Your task to perform on an android device: What is the news today? Image 0: 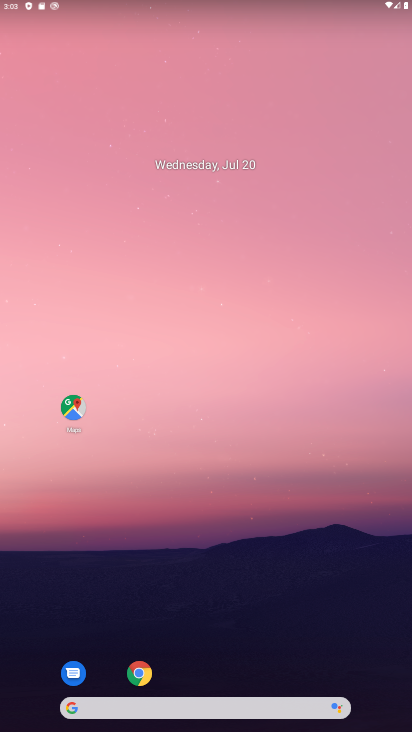
Step 0: drag from (327, 641) to (299, 230)
Your task to perform on an android device: What is the news today? Image 1: 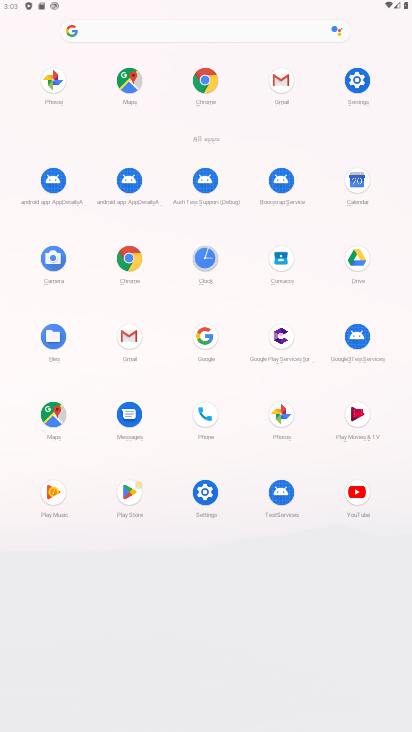
Step 1: click (196, 87)
Your task to perform on an android device: What is the news today? Image 2: 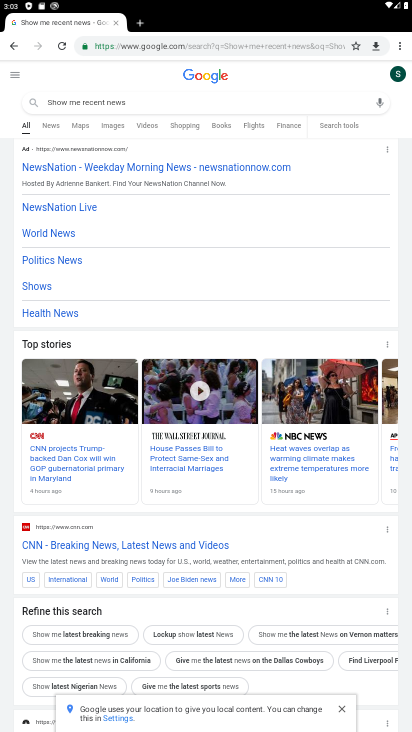
Step 2: click (394, 43)
Your task to perform on an android device: What is the news today? Image 3: 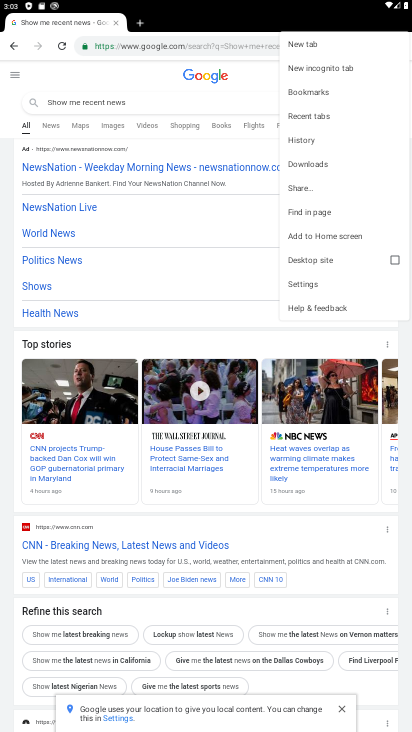
Step 3: click (330, 283)
Your task to perform on an android device: What is the news today? Image 4: 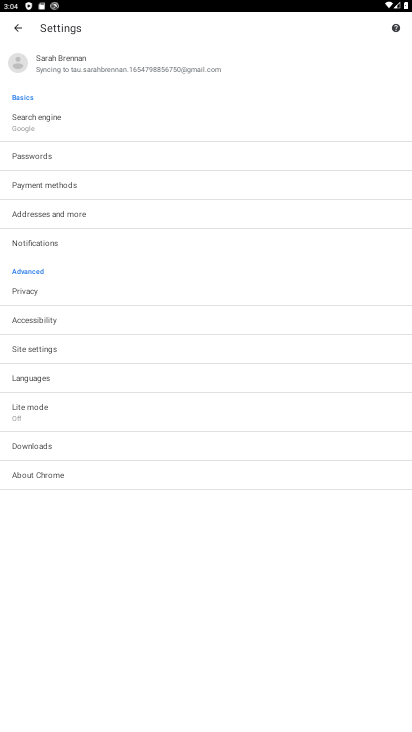
Step 4: click (18, 25)
Your task to perform on an android device: What is the news today? Image 5: 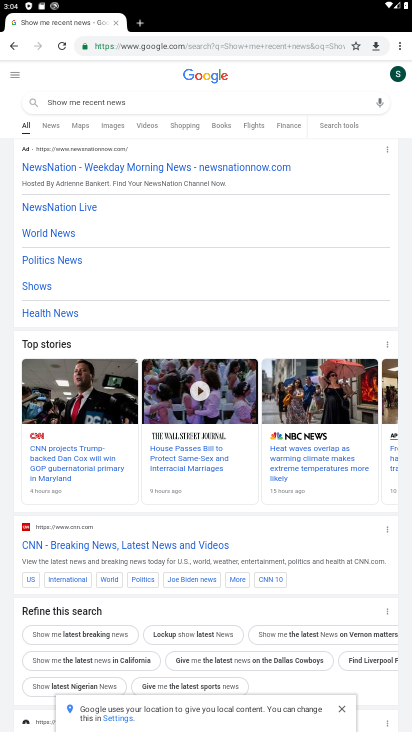
Step 5: click (399, 41)
Your task to perform on an android device: What is the news today? Image 6: 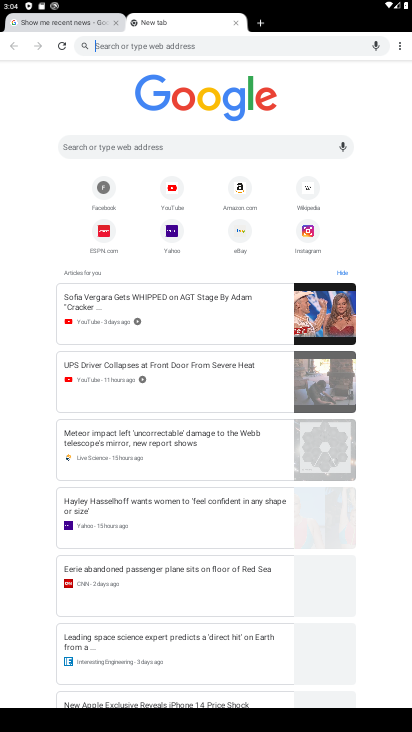
Step 6: click (395, 46)
Your task to perform on an android device: What is the news today? Image 7: 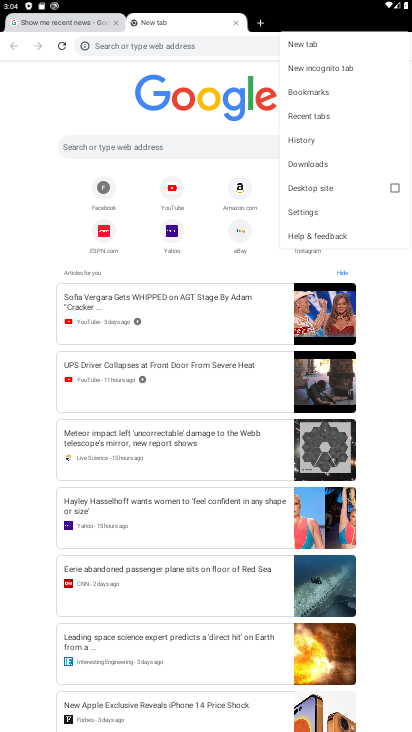
Step 7: click (43, 130)
Your task to perform on an android device: What is the news today? Image 8: 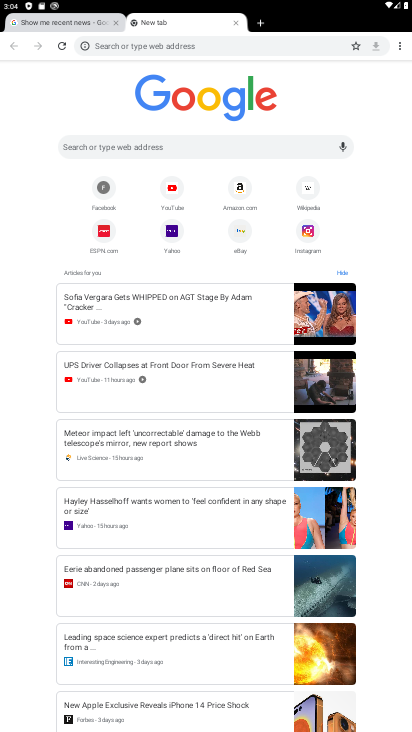
Step 8: click (184, 153)
Your task to perform on an android device: What is the news today? Image 9: 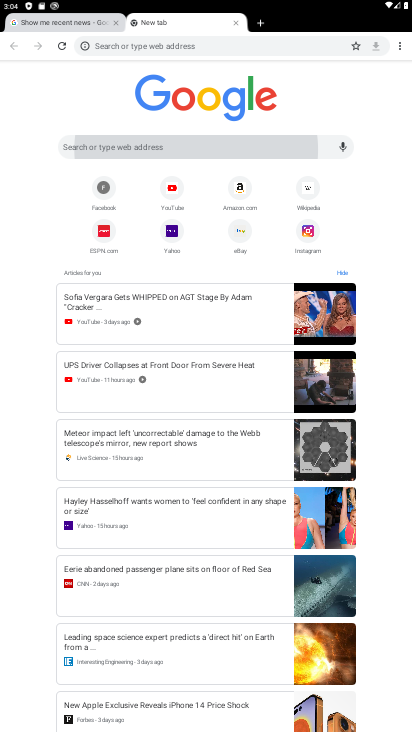
Step 9: click (191, 153)
Your task to perform on an android device: What is the news today? Image 10: 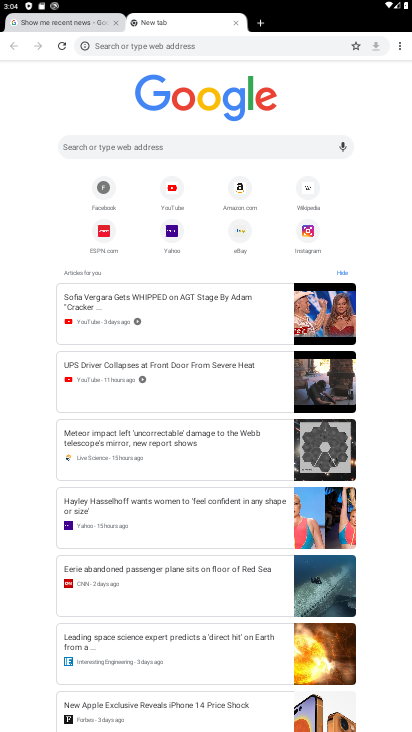
Step 10: type "What is the news today "
Your task to perform on an android device: What is the news today? Image 11: 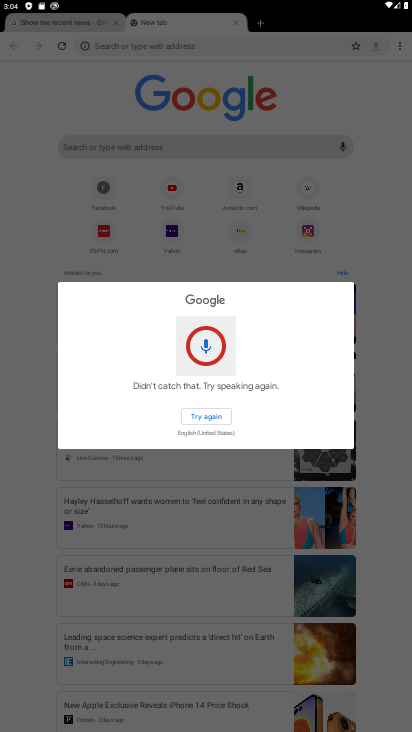
Step 11: click (47, 185)
Your task to perform on an android device: What is the news today? Image 12: 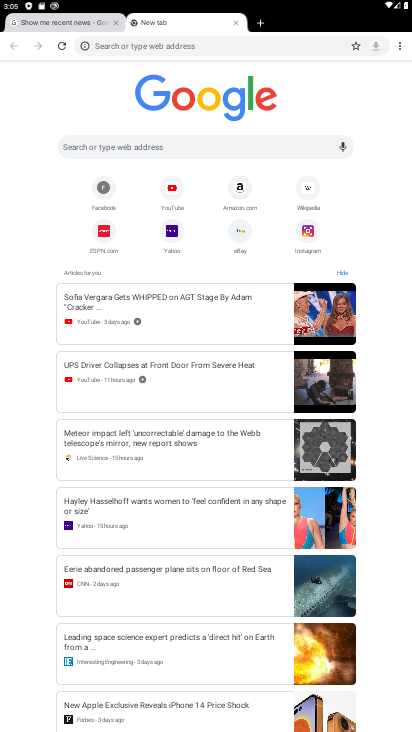
Step 12: click (177, 143)
Your task to perform on an android device: What is the news today? Image 13: 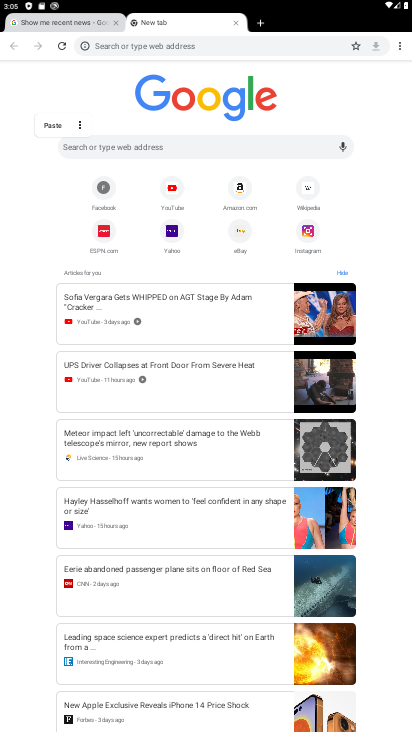
Step 13: type "What is the news today "
Your task to perform on an android device: What is the news today? Image 14: 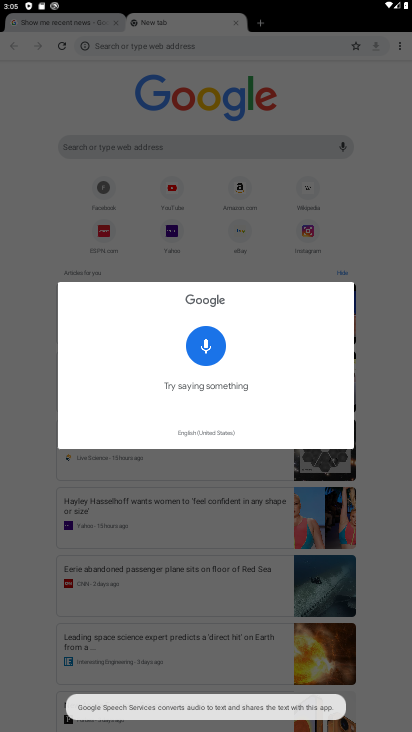
Step 14: click (18, 196)
Your task to perform on an android device: What is the news today? Image 15: 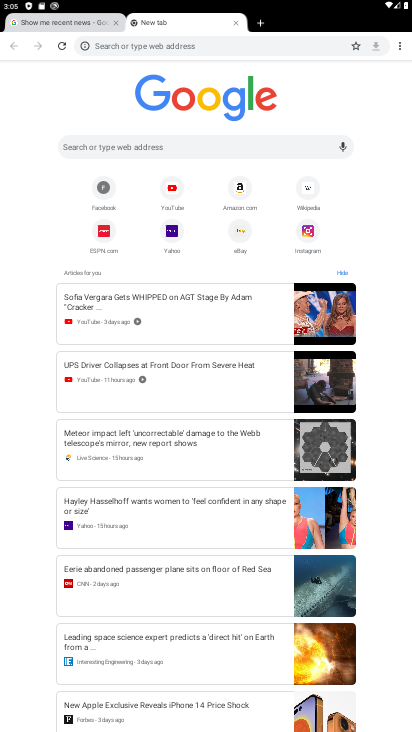
Step 15: click (188, 145)
Your task to perform on an android device: What is the news today? Image 16: 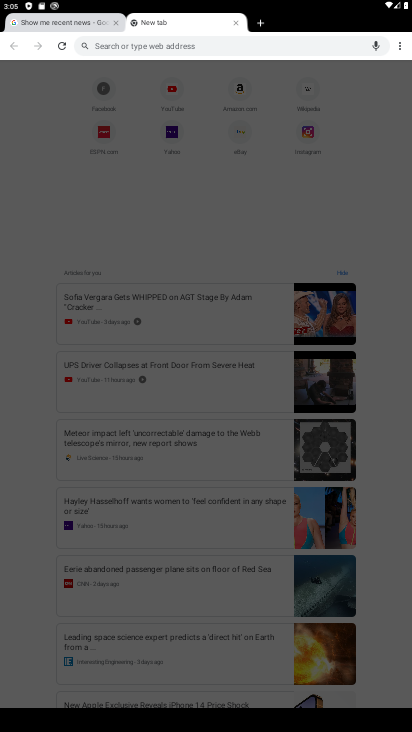
Step 16: type "What is the news today  "
Your task to perform on an android device: What is the news today? Image 17: 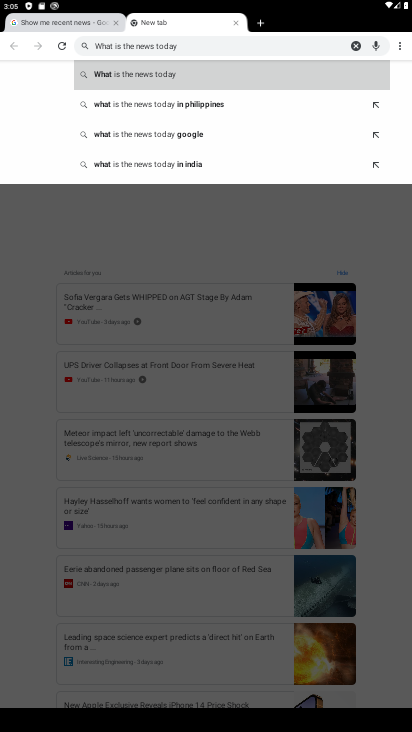
Step 17: click (197, 73)
Your task to perform on an android device: What is the news today? Image 18: 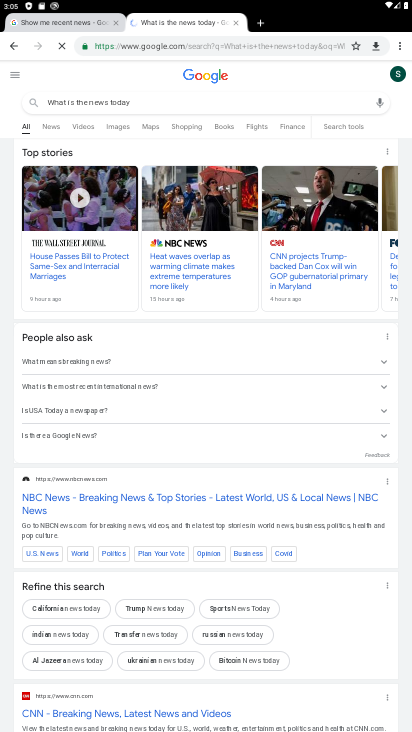
Step 18: task complete